Your task to perform on an android device: turn notification dots on Image 0: 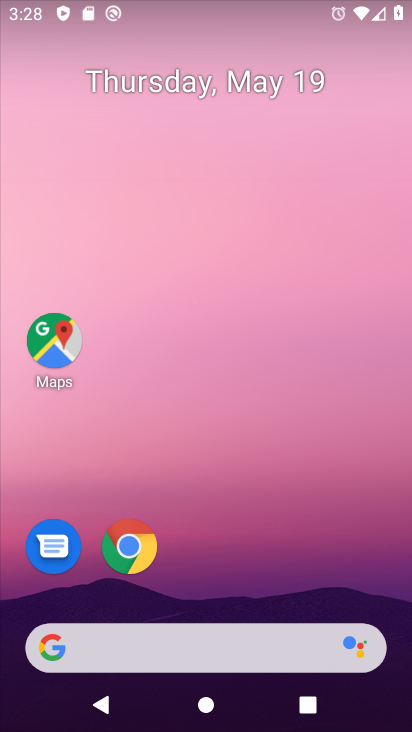
Step 0: drag from (218, 594) to (277, 0)
Your task to perform on an android device: turn notification dots on Image 1: 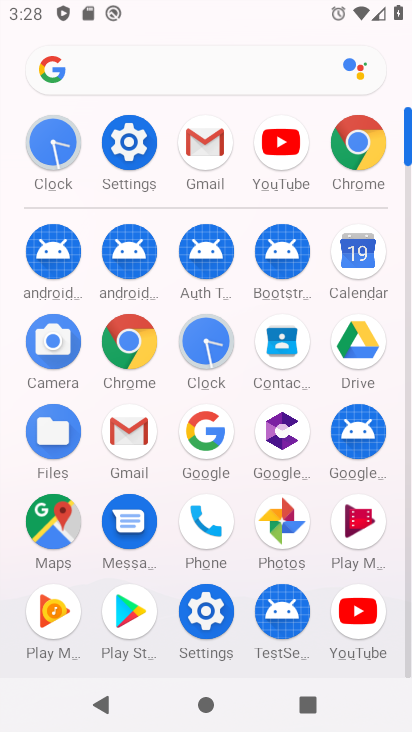
Step 1: click (128, 134)
Your task to perform on an android device: turn notification dots on Image 2: 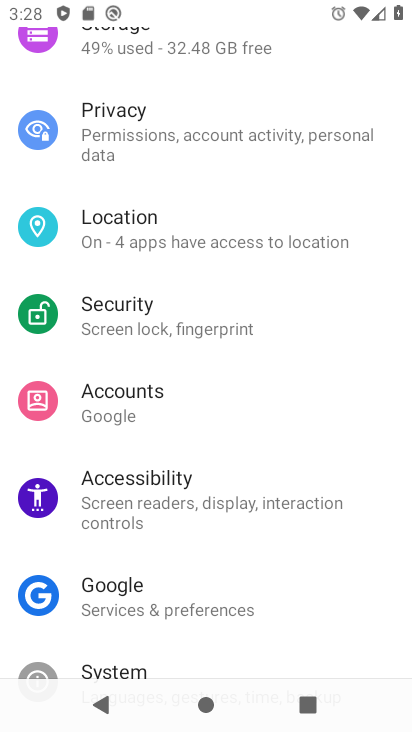
Step 2: drag from (197, 95) to (155, 621)
Your task to perform on an android device: turn notification dots on Image 3: 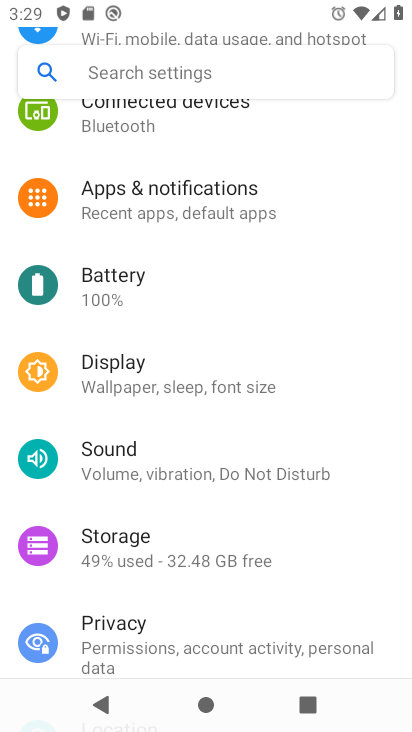
Step 3: click (275, 193)
Your task to perform on an android device: turn notification dots on Image 4: 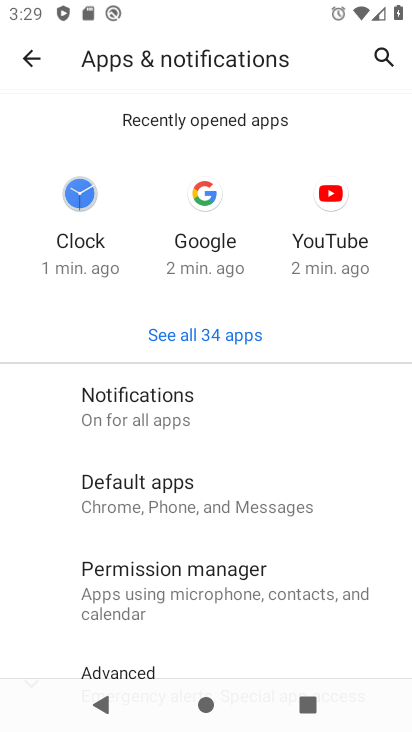
Step 4: click (210, 406)
Your task to perform on an android device: turn notification dots on Image 5: 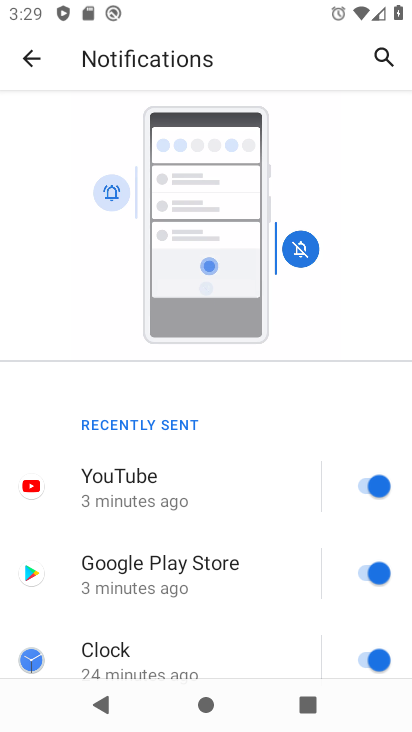
Step 5: drag from (239, 630) to (265, 167)
Your task to perform on an android device: turn notification dots on Image 6: 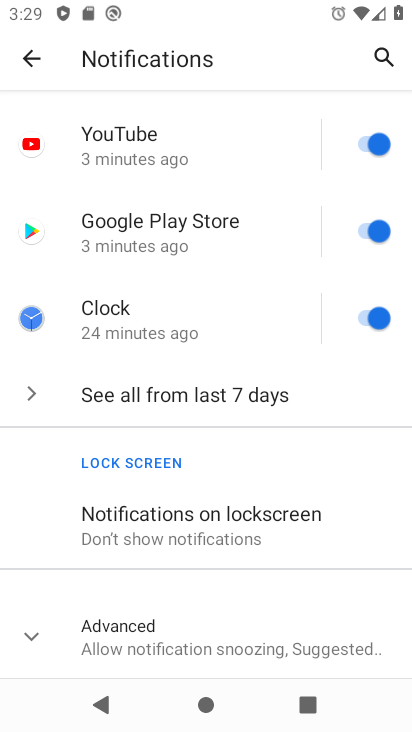
Step 6: click (30, 630)
Your task to perform on an android device: turn notification dots on Image 7: 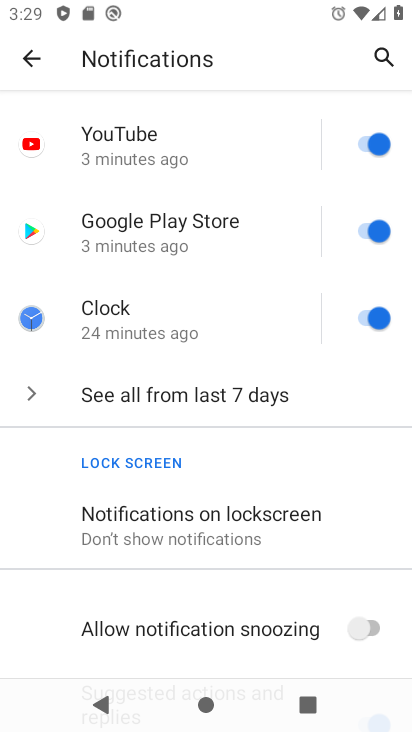
Step 7: drag from (208, 642) to (254, 117)
Your task to perform on an android device: turn notification dots on Image 8: 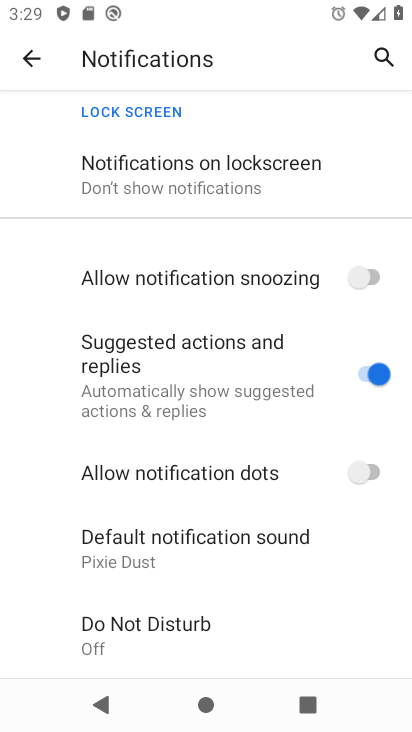
Step 8: click (372, 469)
Your task to perform on an android device: turn notification dots on Image 9: 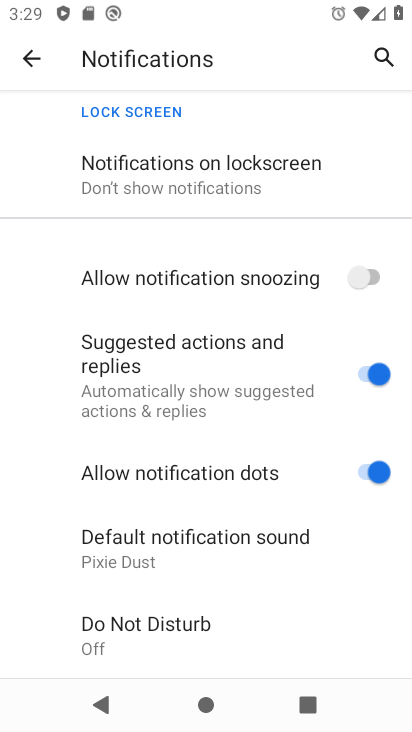
Step 9: task complete